Your task to perform on an android device: Open settings Image 0: 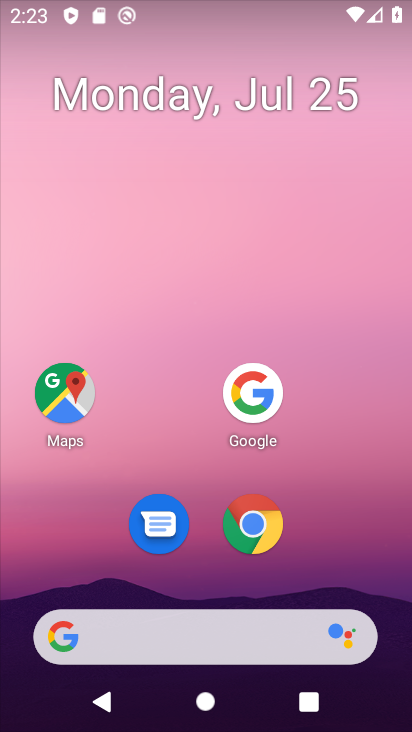
Step 0: press home button
Your task to perform on an android device: Open settings Image 1: 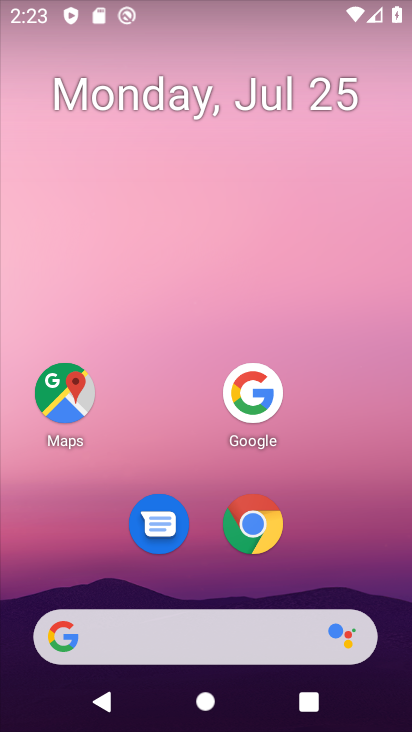
Step 1: drag from (216, 587) to (315, 141)
Your task to perform on an android device: Open settings Image 2: 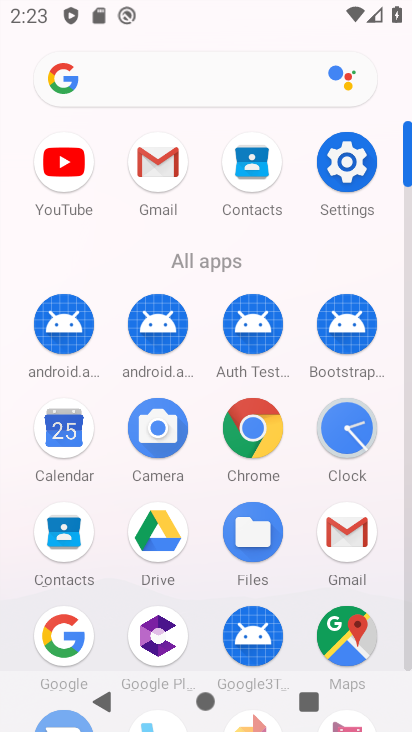
Step 2: click (351, 145)
Your task to perform on an android device: Open settings Image 3: 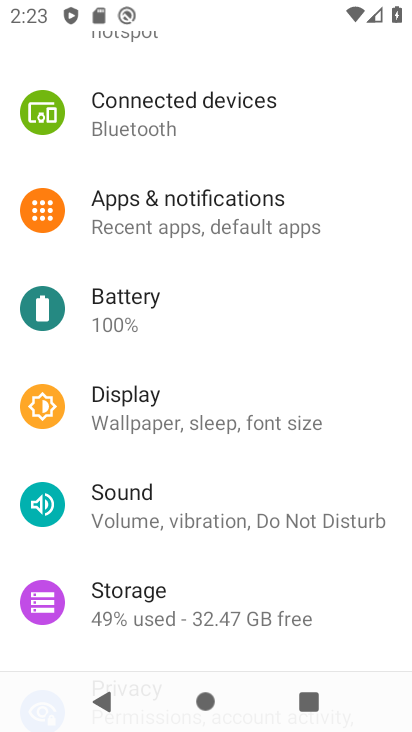
Step 3: task complete